Your task to perform on an android device: Toggle the flashlight Image 0: 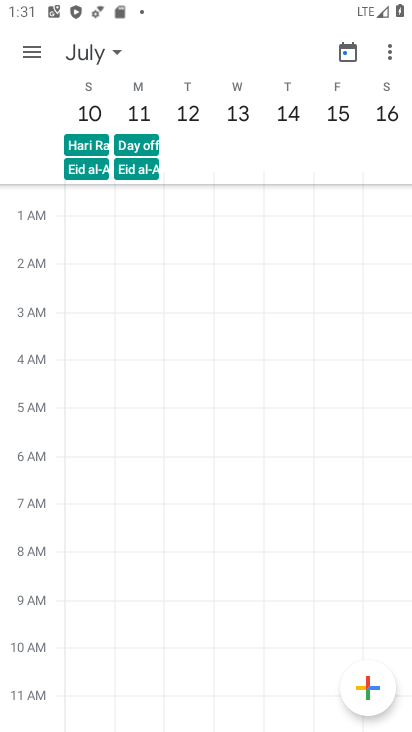
Step 0: press home button
Your task to perform on an android device: Toggle the flashlight Image 1: 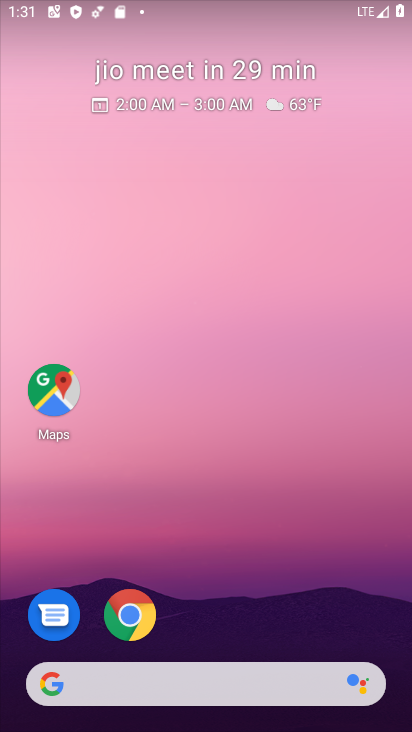
Step 1: task complete